Your task to perform on an android device: change the clock display to analog Image 0: 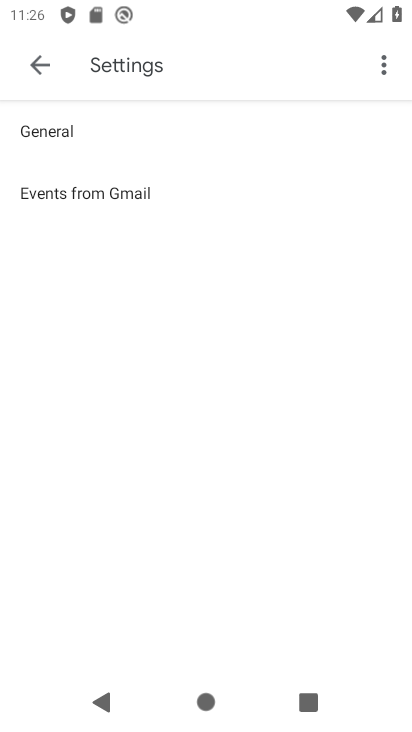
Step 0: press home button
Your task to perform on an android device: change the clock display to analog Image 1: 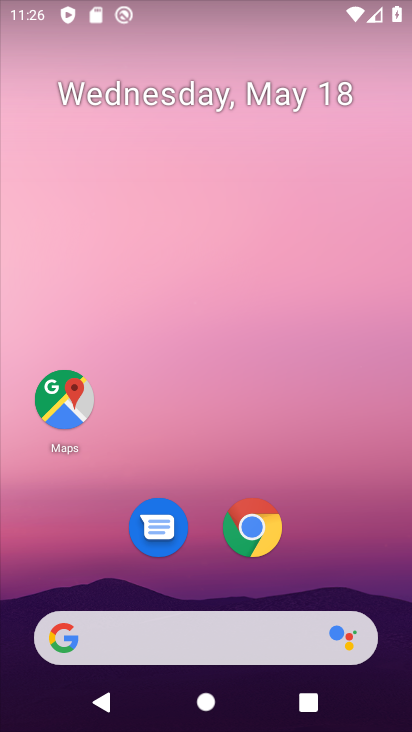
Step 1: drag from (207, 512) to (279, 50)
Your task to perform on an android device: change the clock display to analog Image 2: 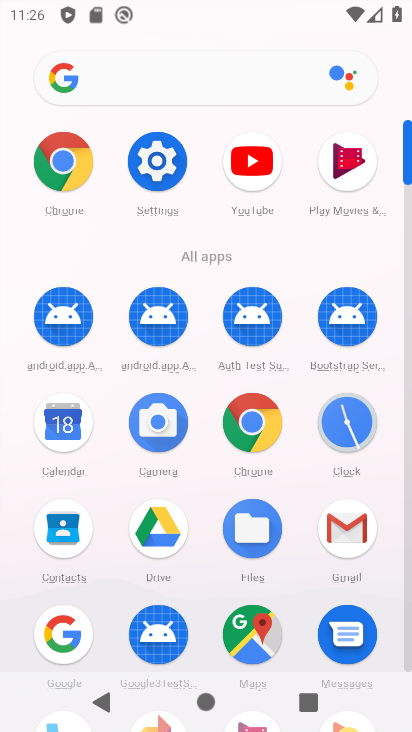
Step 2: click (351, 417)
Your task to perform on an android device: change the clock display to analog Image 3: 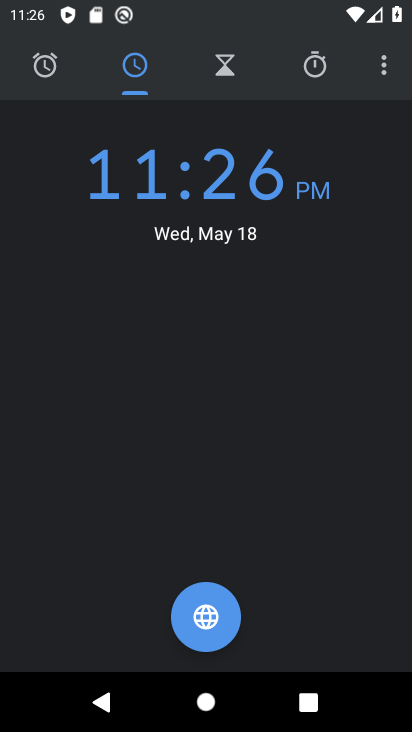
Step 3: click (383, 63)
Your task to perform on an android device: change the clock display to analog Image 4: 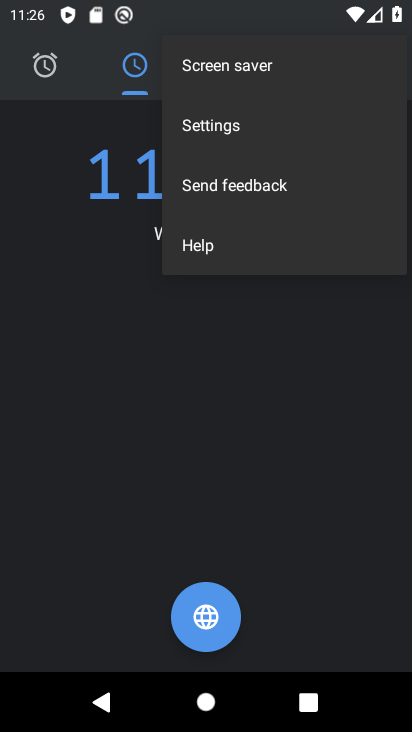
Step 4: click (247, 124)
Your task to perform on an android device: change the clock display to analog Image 5: 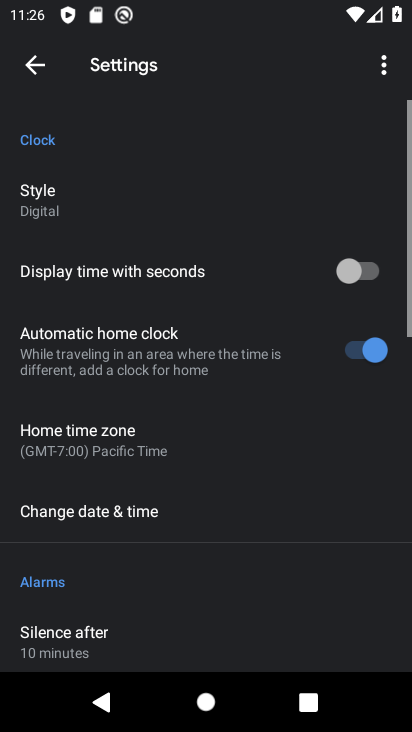
Step 5: click (67, 187)
Your task to perform on an android device: change the clock display to analog Image 6: 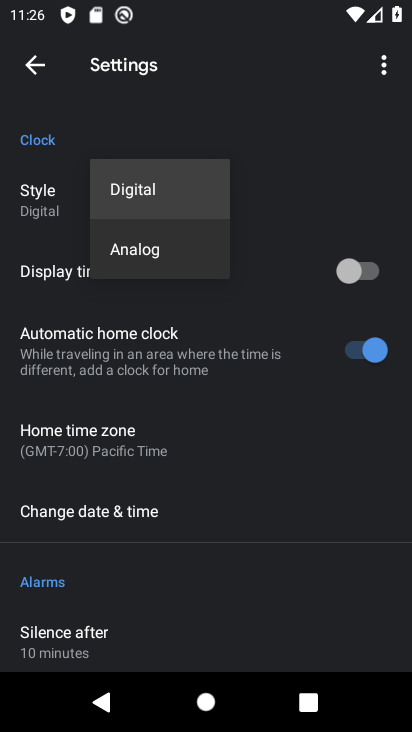
Step 6: click (135, 252)
Your task to perform on an android device: change the clock display to analog Image 7: 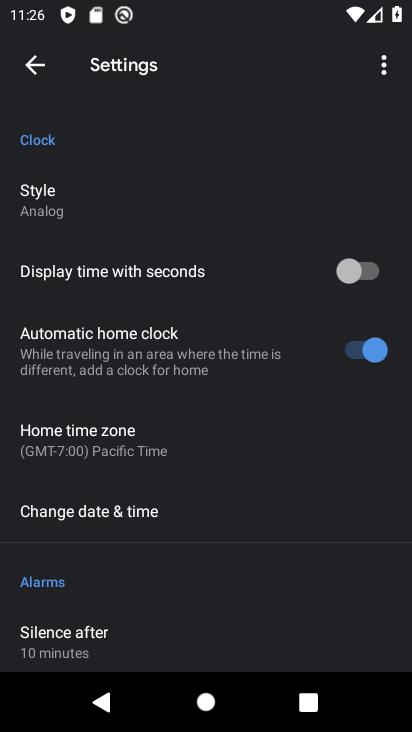
Step 7: task complete